Your task to perform on an android device: turn on wifi Image 0: 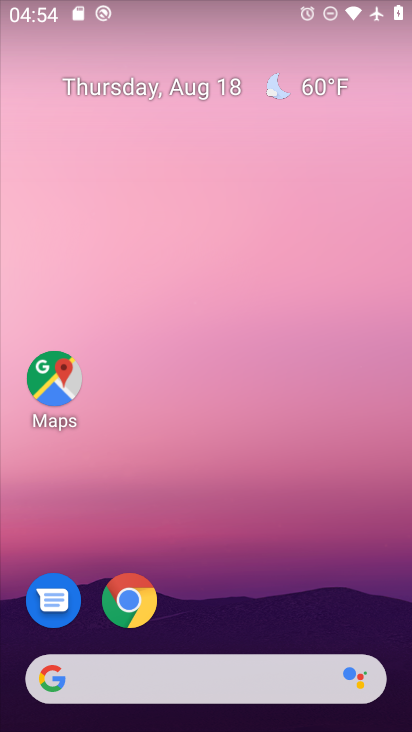
Step 0: press home button
Your task to perform on an android device: turn on wifi Image 1: 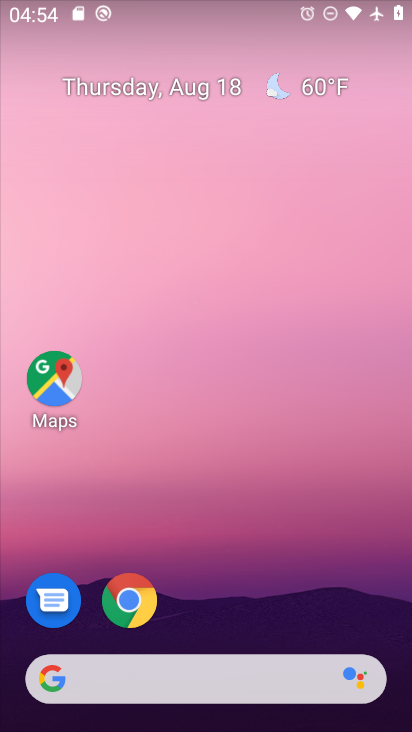
Step 1: task complete